Your task to perform on an android device: turn on airplane mode Image 0: 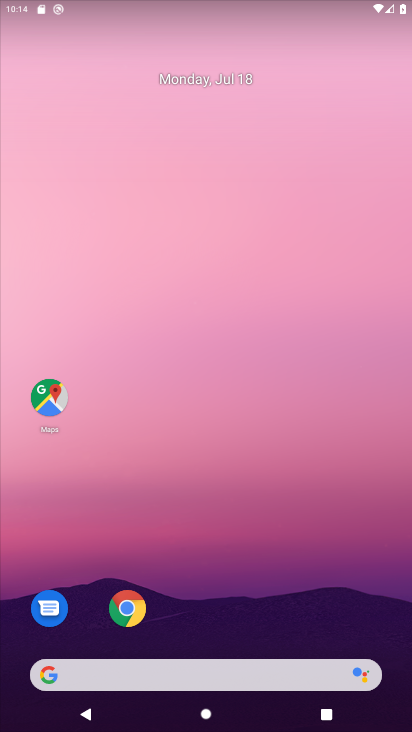
Step 0: click (207, 679)
Your task to perform on an android device: turn on airplane mode Image 1: 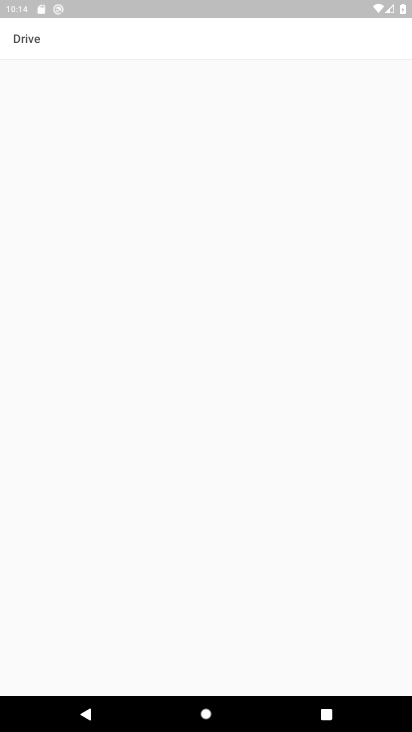
Step 1: press home button
Your task to perform on an android device: turn on airplane mode Image 2: 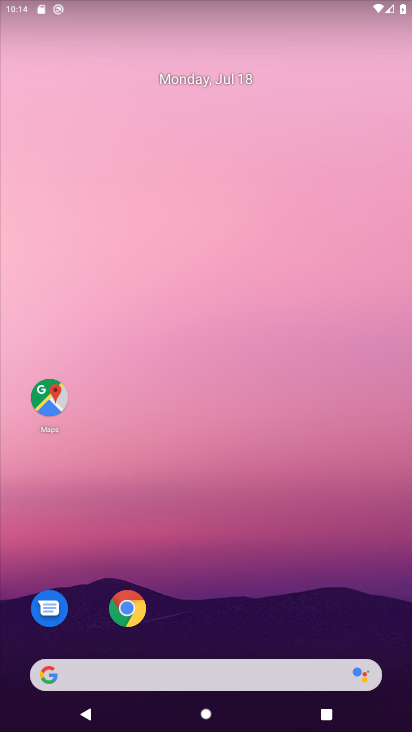
Step 2: drag from (225, 632) to (184, 17)
Your task to perform on an android device: turn on airplane mode Image 3: 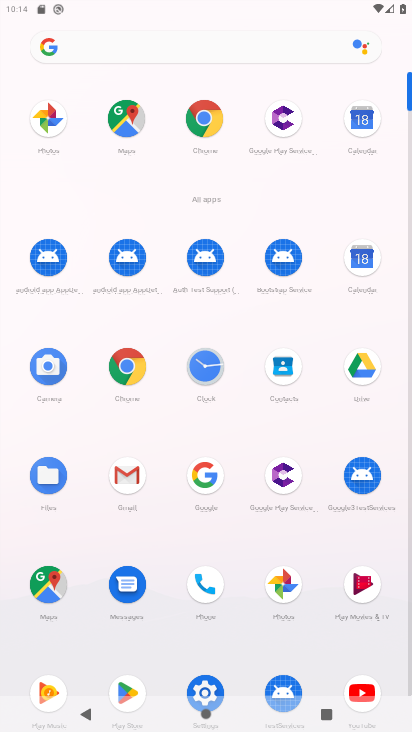
Step 3: click (204, 678)
Your task to perform on an android device: turn on airplane mode Image 4: 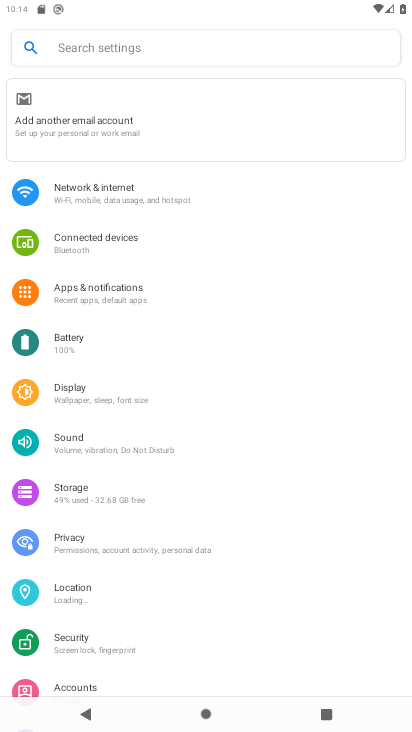
Step 4: click (89, 189)
Your task to perform on an android device: turn on airplane mode Image 5: 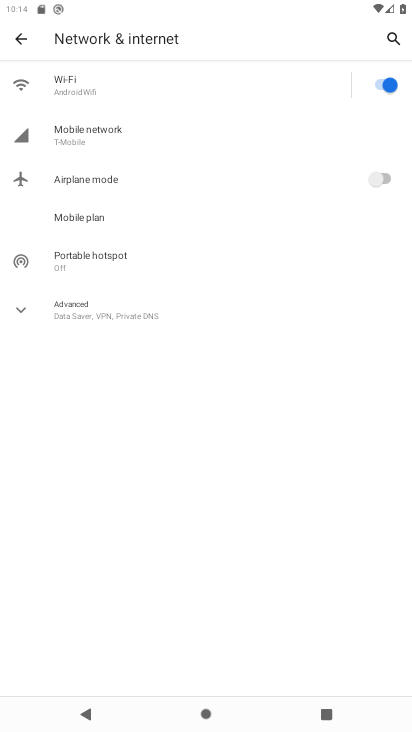
Step 5: click (88, 177)
Your task to perform on an android device: turn on airplane mode Image 6: 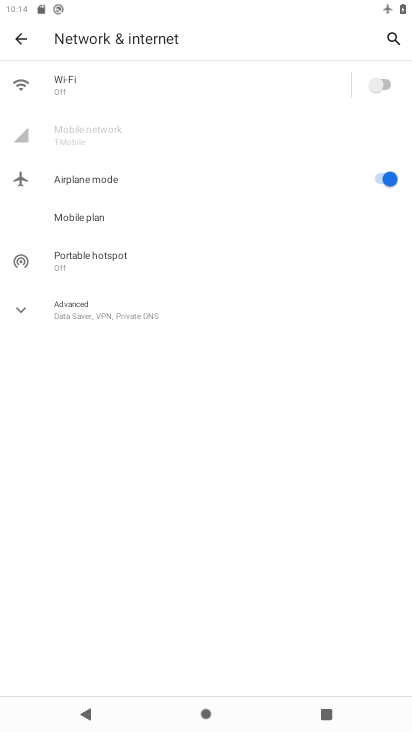
Step 6: task complete